Your task to perform on an android device: Search for bose soundlink mini on ebay, select the first entry, add it to the cart, then select checkout. Image 0: 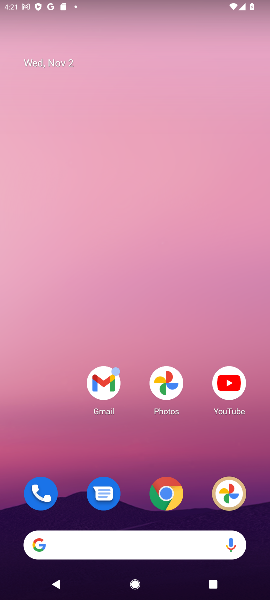
Step 0: drag from (85, 491) to (107, 218)
Your task to perform on an android device: Search for bose soundlink mini on ebay, select the first entry, add it to the cart, then select checkout. Image 1: 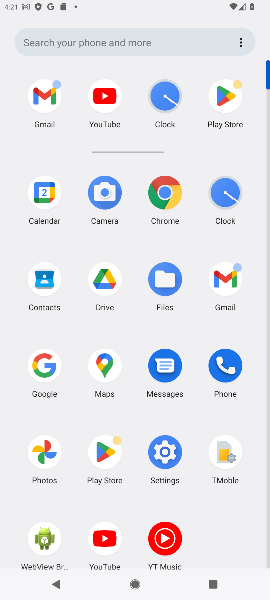
Step 1: click (38, 367)
Your task to perform on an android device: Search for bose soundlink mini on ebay, select the first entry, add it to the cart, then select checkout. Image 2: 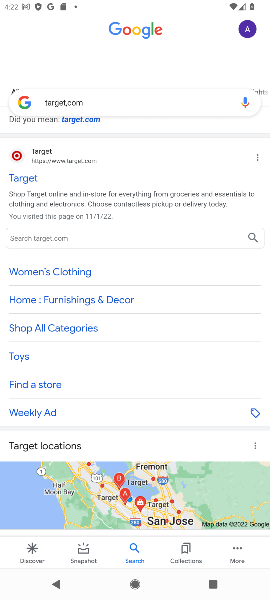
Step 2: click (114, 93)
Your task to perform on an android device: Search for bose soundlink mini on ebay, select the first entry, add it to the cart, then select checkout. Image 3: 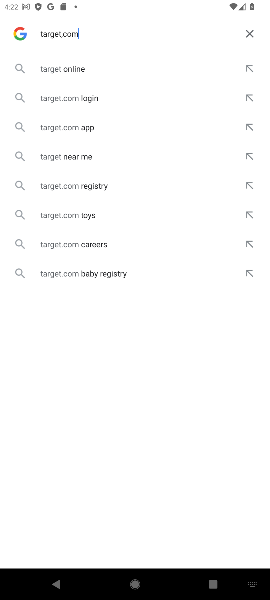
Step 3: click (246, 31)
Your task to perform on an android device: Search for bose soundlink mini on ebay, select the first entry, add it to the cart, then select checkout. Image 4: 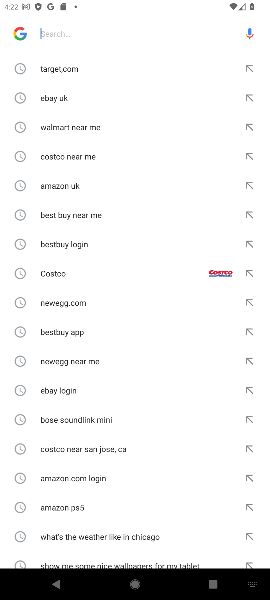
Step 4: click (49, 98)
Your task to perform on an android device: Search for bose soundlink mini on ebay, select the first entry, add it to the cart, then select checkout. Image 5: 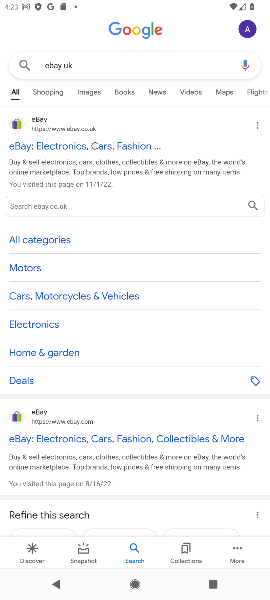
Step 5: click (12, 121)
Your task to perform on an android device: Search for bose soundlink mini on ebay, select the first entry, add it to the cart, then select checkout. Image 6: 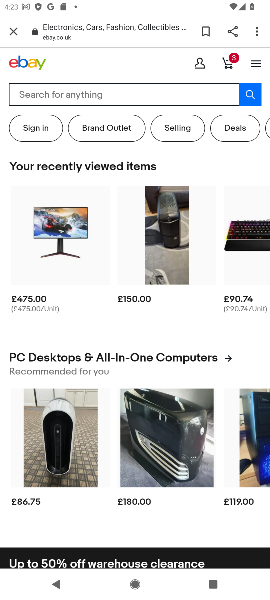
Step 6: click (78, 84)
Your task to perform on an android device: Search for bose soundlink mini on ebay, select the first entry, add it to the cart, then select checkout. Image 7: 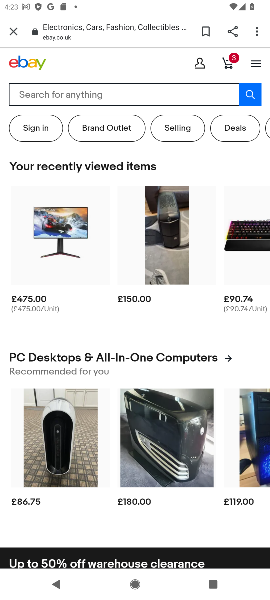
Step 7: click (78, 84)
Your task to perform on an android device: Search for bose soundlink mini on ebay, select the first entry, add it to the cart, then select checkout. Image 8: 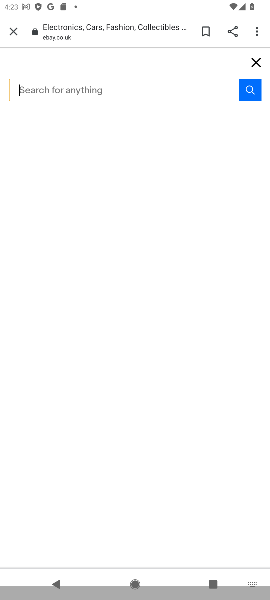
Step 8: click (79, 93)
Your task to perform on an android device: Search for bose soundlink mini on ebay, select the first entry, add it to the cart, then select checkout. Image 9: 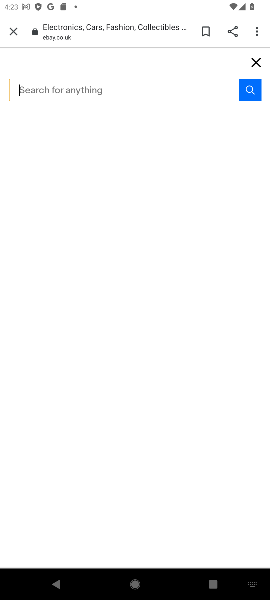
Step 9: click (31, 86)
Your task to perform on an android device: Search for bose soundlink mini on ebay, select the first entry, add it to the cart, then select checkout. Image 10: 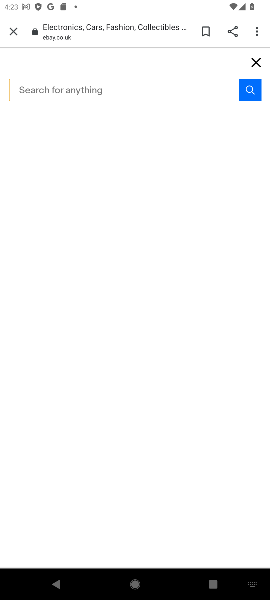
Step 10: type "bose soundlink "
Your task to perform on an android device: Search for bose soundlink mini on ebay, select the first entry, add it to the cart, then select checkout. Image 11: 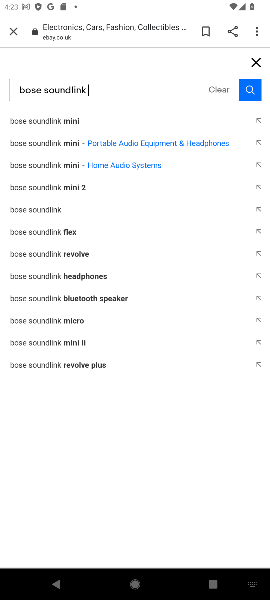
Step 11: click (58, 123)
Your task to perform on an android device: Search for bose soundlink mini on ebay, select the first entry, add it to the cart, then select checkout. Image 12: 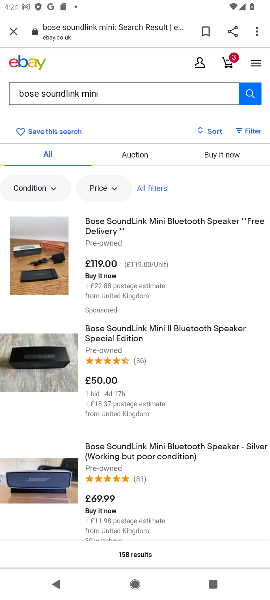
Step 12: click (149, 223)
Your task to perform on an android device: Search for bose soundlink mini on ebay, select the first entry, add it to the cart, then select checkout. Image 13: 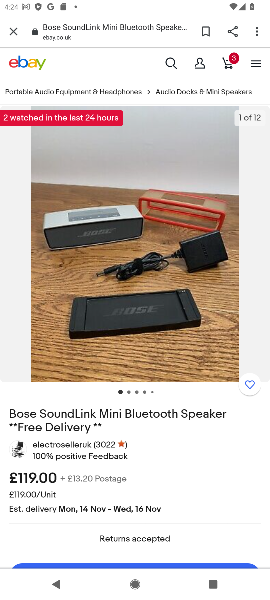
Step 13: drag from (148, 500) to (188, 150)
Your task to perform on an android device: Search for bose soundlink mini on ebay, select the first entry, add it to the cart, then select checkout. Image 14: 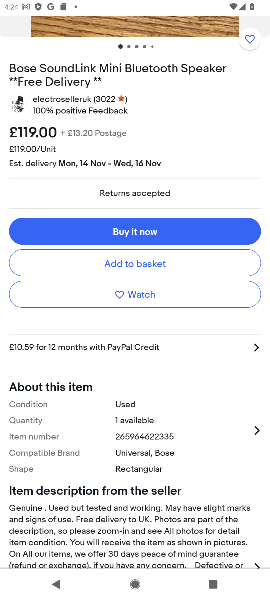
Step 14: click (144, 262)
Your task to perform on an android device: Search for bose soundlink mini on ebay, select the first entry, add it to the cart, then select checkout. Image 15: 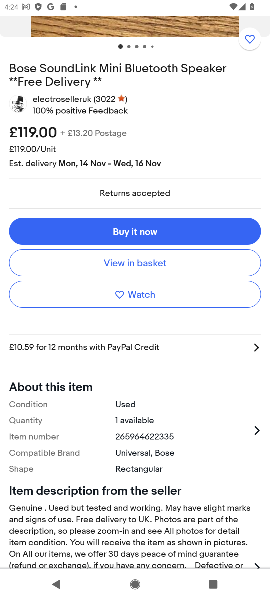
Step 15: click (146, 259)
Your task to perform on an android device: Search for bose soundlink mini on ebay, select the first entry, add it to the cart, then select checkout. Image 16: 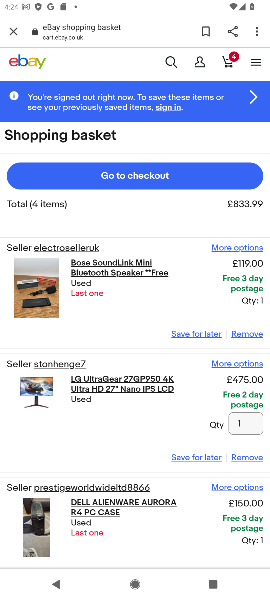
Step 16: task complete